Your task to perform on an android device: Go to CNN.com Image 0: 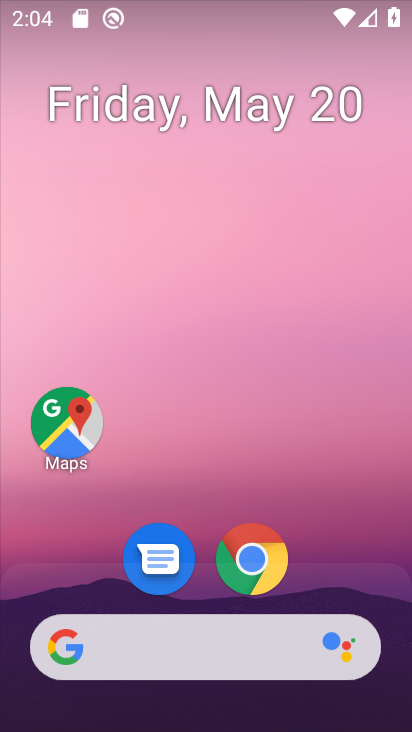
Step 0: click (254, 557)
Your task to perform on an android device: Go to CNN.com Image 1: 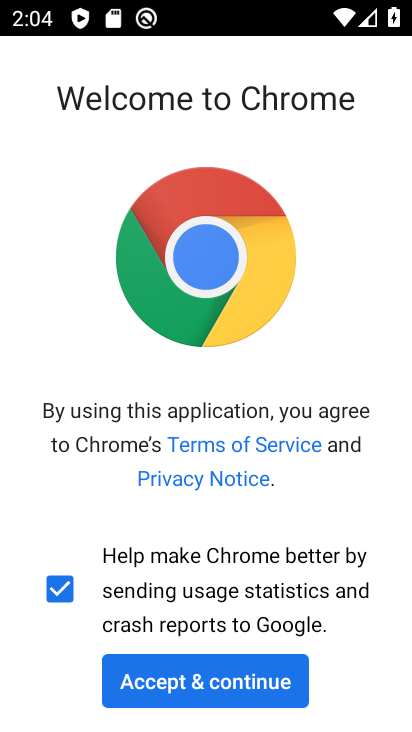
Step 1: click (220, 684)
Your task to perform on an android device: Go to CNN.com Image 2: 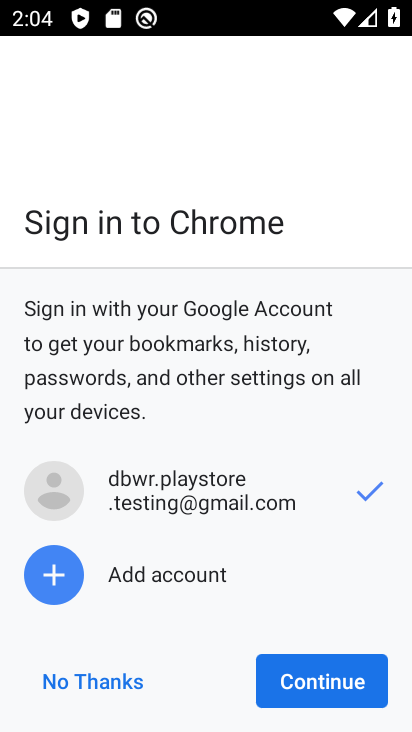
Step 2: click (308, 678)
Your task to perform on an android device: Go to CNN.com Image 3: 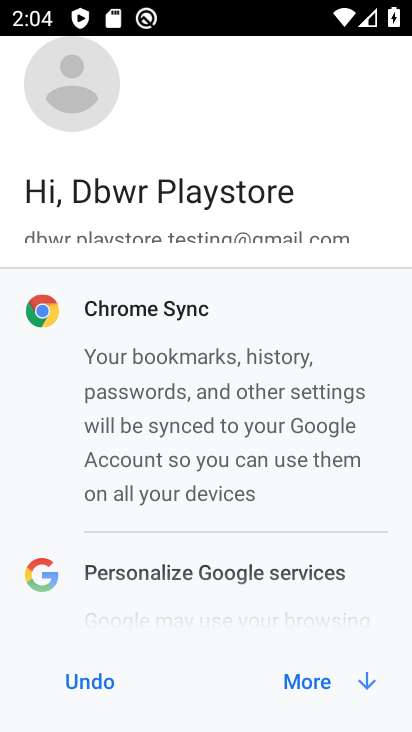
Step 3: click (308, 678)
Your task to perform on an android device: Go to CNN.com Image 4: 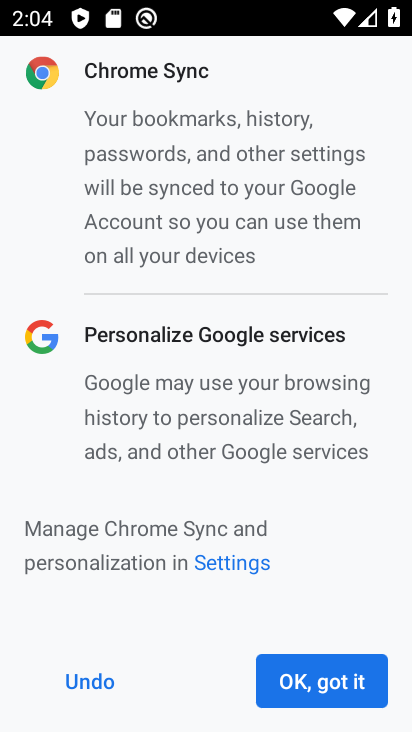
Step 4: click (308, 678)
Your task to perform on an android device: Go to CNN.com Image 5: 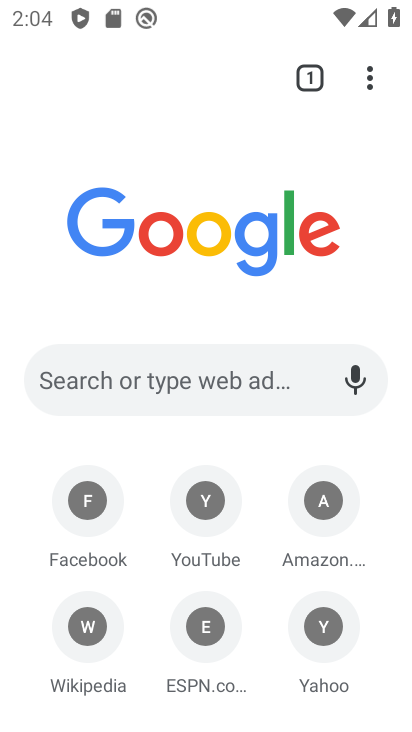
Step 5: click (230, 385)
Your task to perform on an android device: Go to CNN.com Image 6: 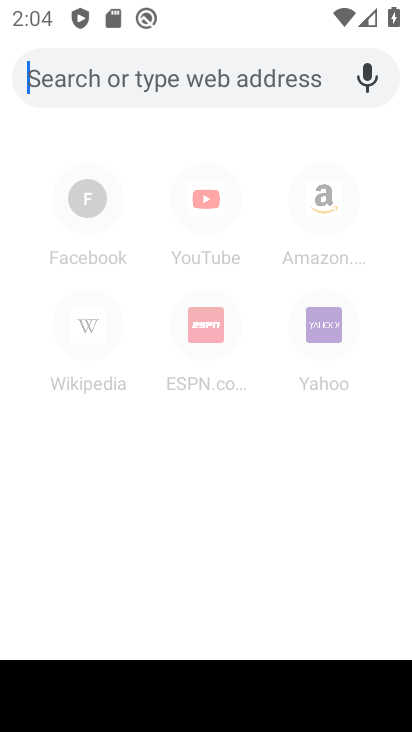
Step 6: type "CNN.com"
Your task to perform on an android device: Go to CNN.com Image 7: 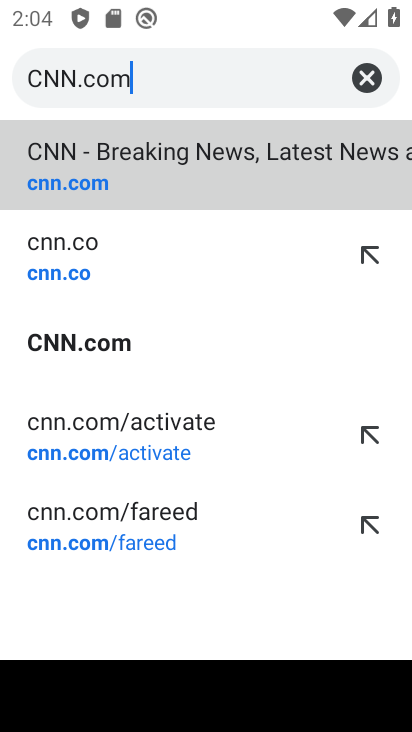
Step 7: type ""
Your task to perform on an android device: Go to CNN.com Image 8: 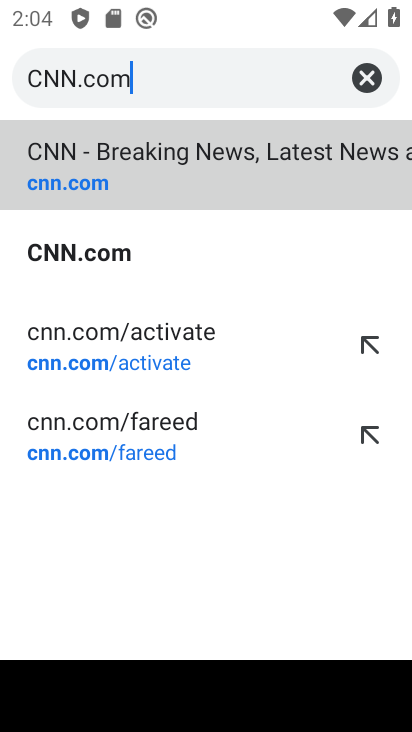
Step 8: click (77, 243)
Your task to perform on an android device: Go to CNN.com Image 9: 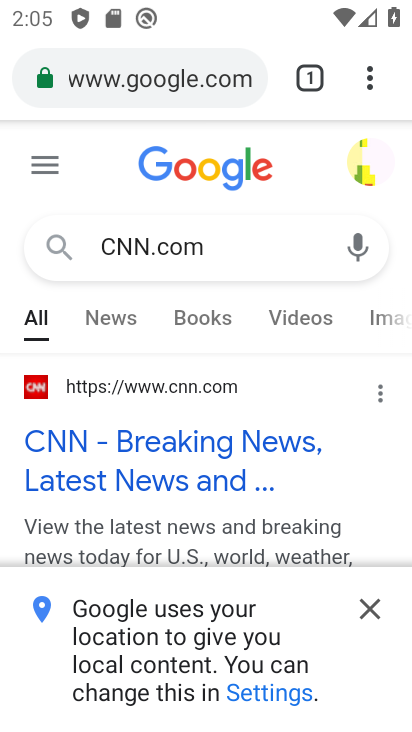
Step 9: click (167, 445)
Your task to perform on an android device: Go to CNN.com Image 10: 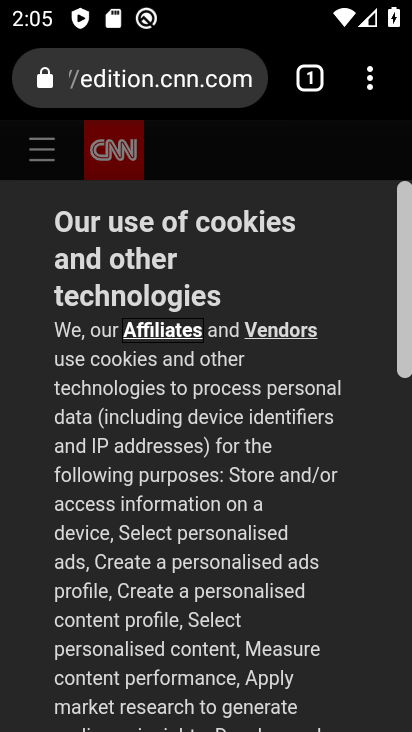
Step 10: task complete